Your task to perform on an android device: Search for seafood restaurants on Google Maps Image 0: 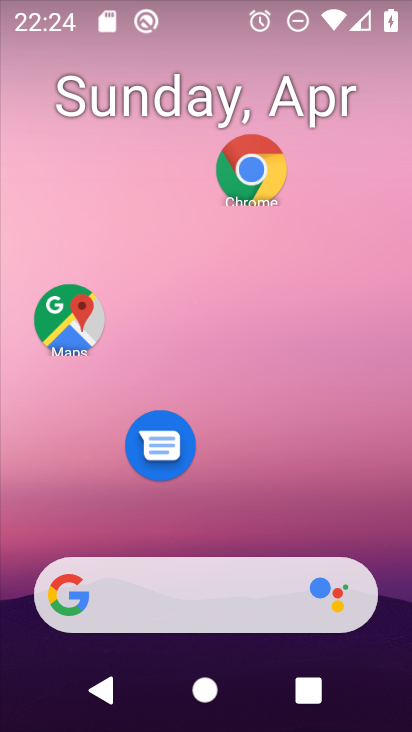
Step 0: click (60, 319)
Your task to perform on an android device: Search for seafood restaurants on Google Maps Image 1: 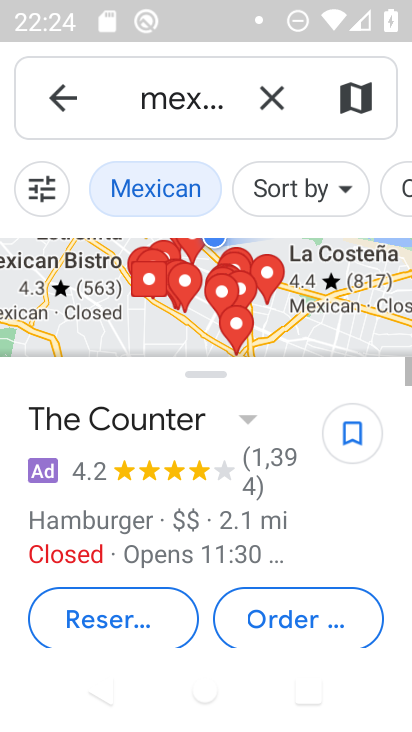
Step 1: click (271, 99)
Your task to perform on an android device: Search for seafood restaurants on Google Maps Image 2: 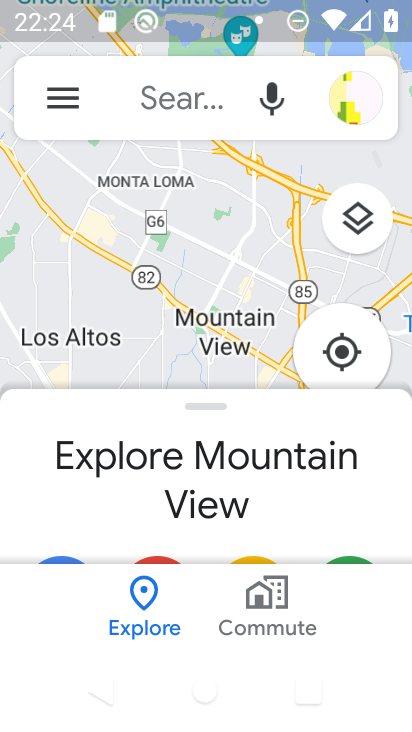
Step 2: click (177, 106)
Your task to perform on an android device: Search for seafood restaurants on Google Maps Image 3: 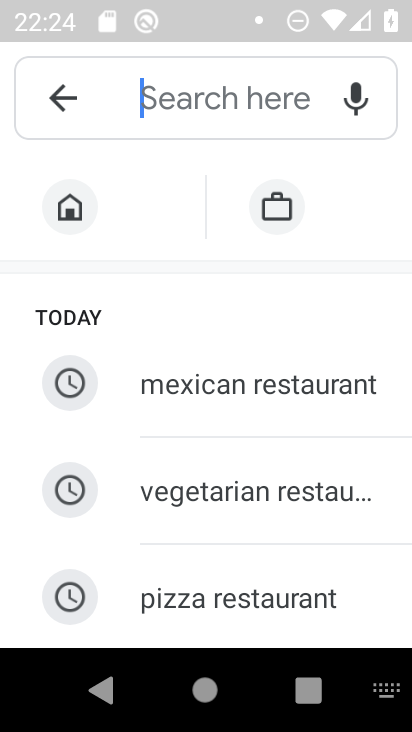
Step 3: drag from (334, 519) to (316, 138)
Your task to perform on an android device: Search for seafood restaurants on Google Maps Image 4: 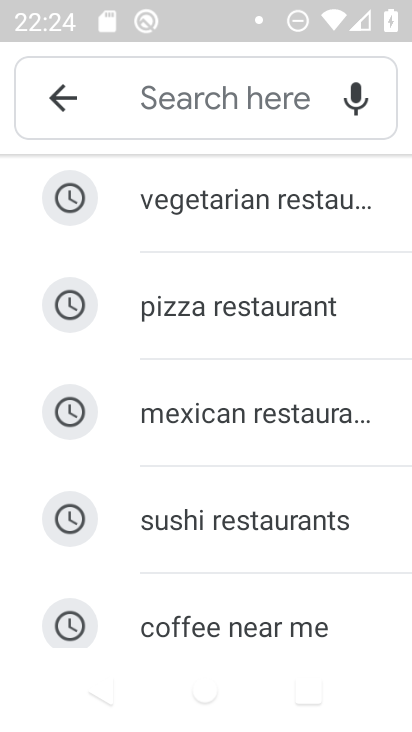
Step 4: click (222, 103)
Your task to perform on an android device: Search for seafood restaurants on Google Maps Image 5: 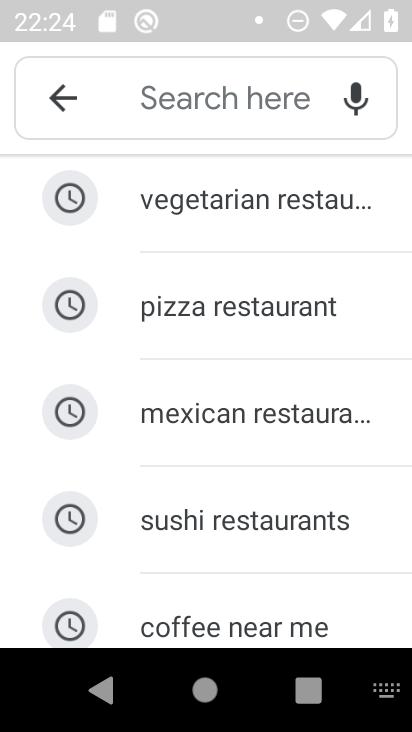
Step 5: type "seafood restauirents"
Your task to perform on an android device: Search for seafood restaurants on Google Maps Image 6: 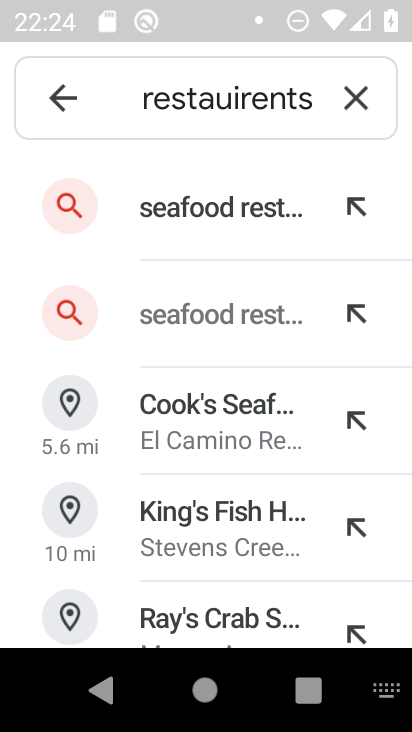
Step 6: click (214, 209)
Your task to perform on an android device: Search for seafood restaurants on Google Maps Image 7: 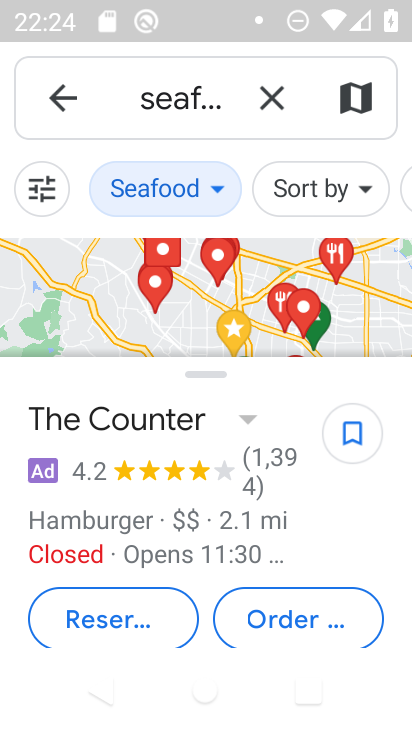
Step 7: task complete